Your task to perform on an android device: Open Maps and search for coffee Image 0: 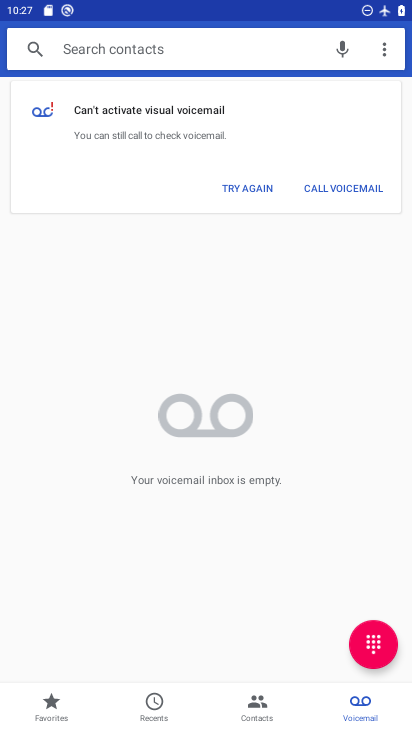
Step 0: press home button
Your task to perform on an android device: Open Maps and search for coffee Image 1: 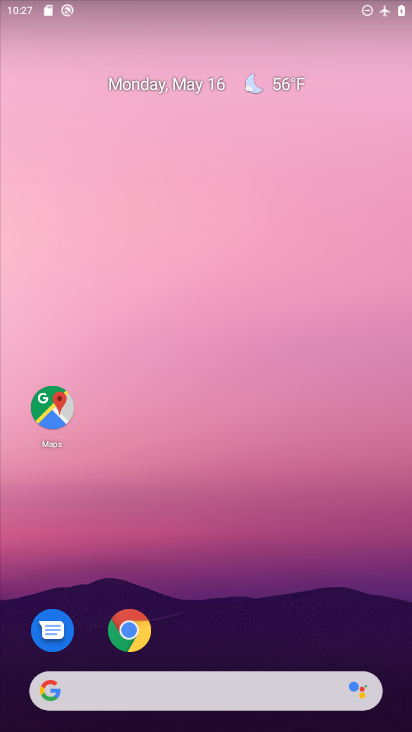
Step 1: click (65, 401)
Your task to perform on an android device: Open Maps and search for coffee Image 2: 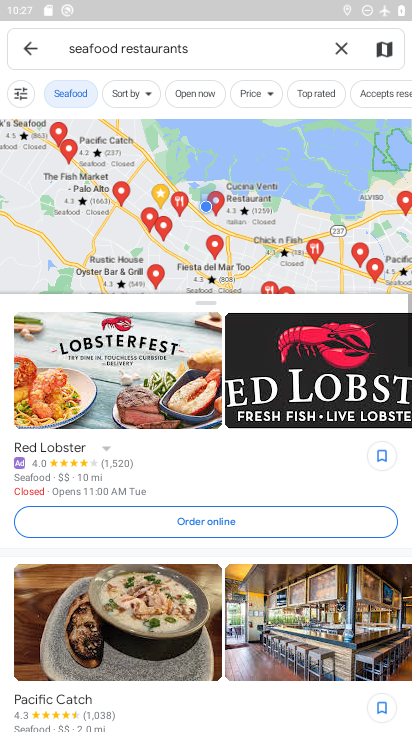
Step 2: click (337, 43)
Your task to perform on an android device: Open Maps and search for coffee Image 3: 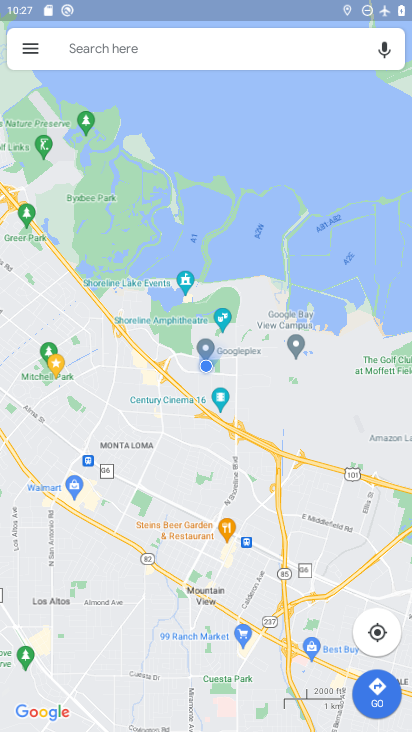
Step 3: click (224, 47)
Your task to perform on an android device: Open Maps and search for coffee Image 4: 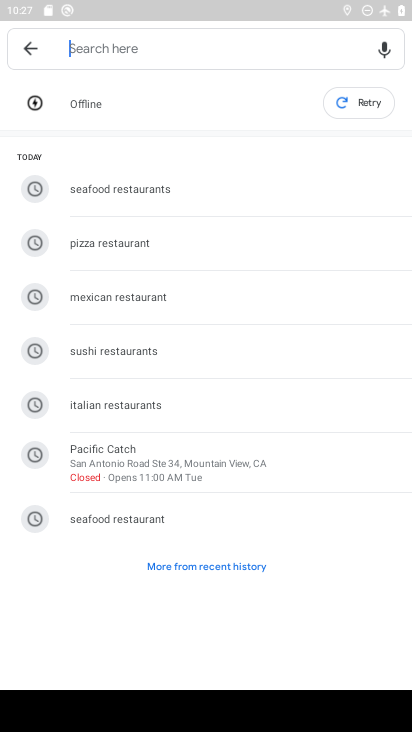
Step 4: type "coffee"
Your task to perform on an android device: Open Maps and search for coffee Image 5: 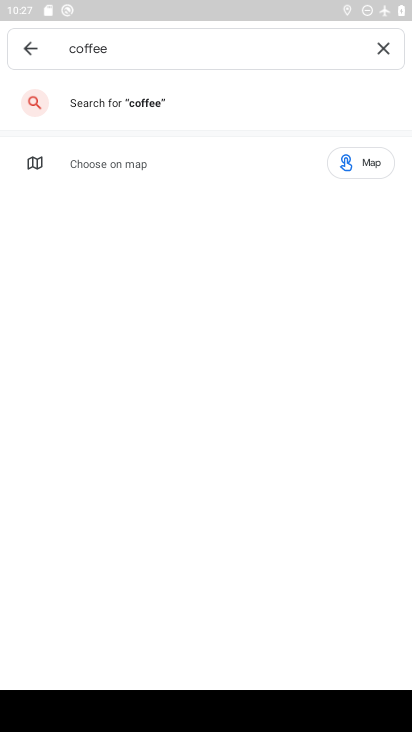
Step 5: click (144, 99)
Your task to perform on an android device: Open Maps and search for coffee Image 6: 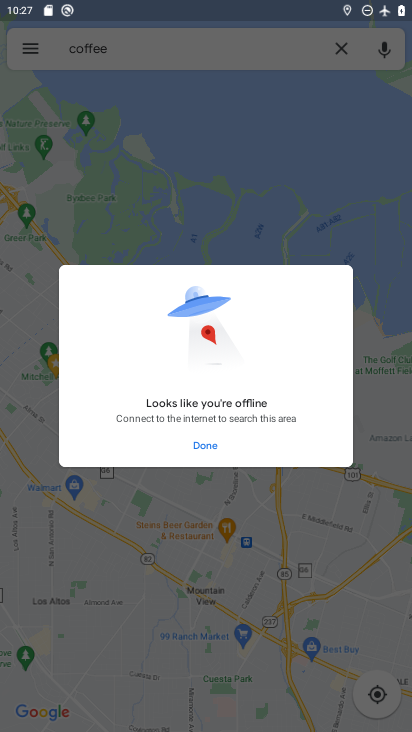
Step 6: task complete